Your task to perform on an android device: Add "bose soundsport free" to the cart on newegg.com, then select checkout. Image 0: 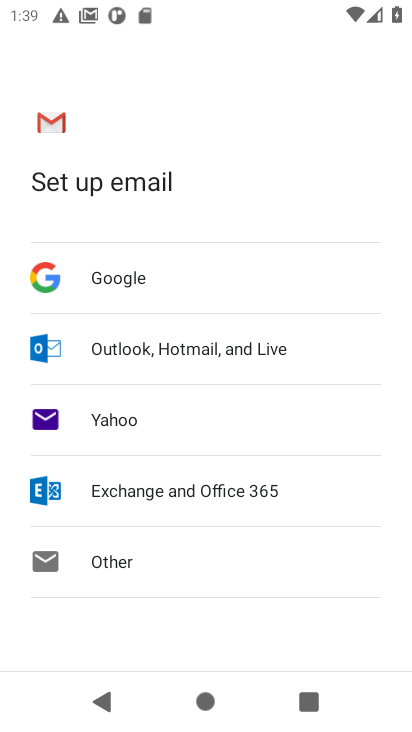
Step 0: press home button
Your task to perform on an android device: Add "bose soundsport free" to the cart on newegg.com, then select checkout. Image 1: 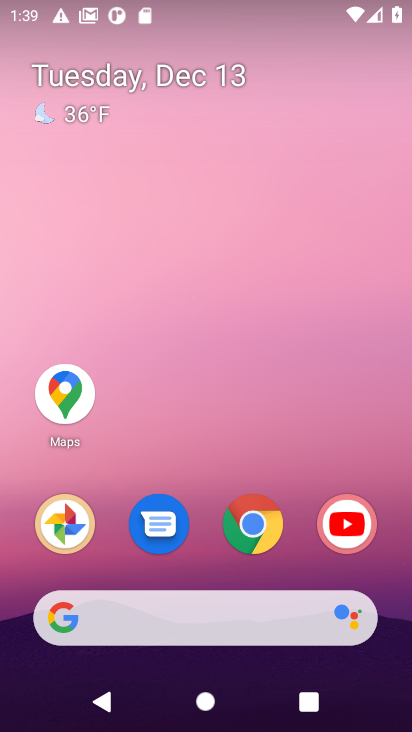
Step 1: click (255, 526)
Your task to perform on an android device: Add "bose soundsport free" to the cart on newegg.com, then select checkout. Image 2: 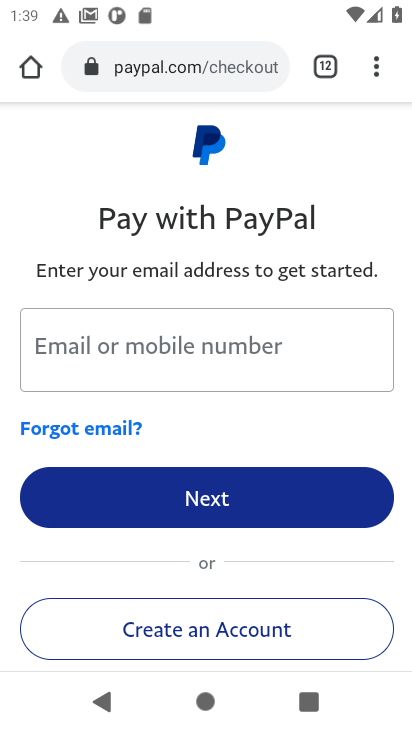
Step 2: click (173, 65)
Your task to perform on an android device: Add "bose soundsport free" to the cart on newegg.com, then select checkout. Image 3: 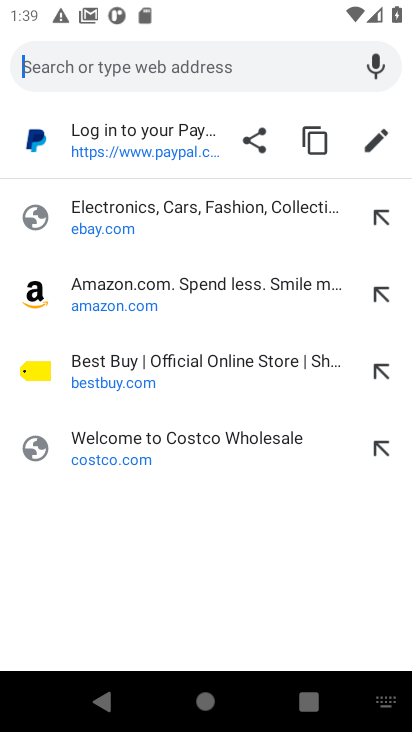
Step 3: type "newegg.com"
Your task to perform on an android device: Add "bose soundsport free" to the cart on newegg.com, then select checkout. Image 4: 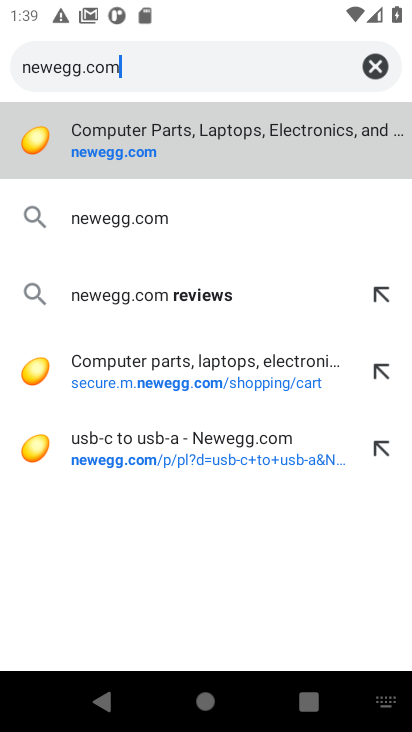
Step 4: click (105, 159)
Your task to perform on an android device: Add "bose soundsport free" to the cart on newegg.com, then select checkout. Image 5: 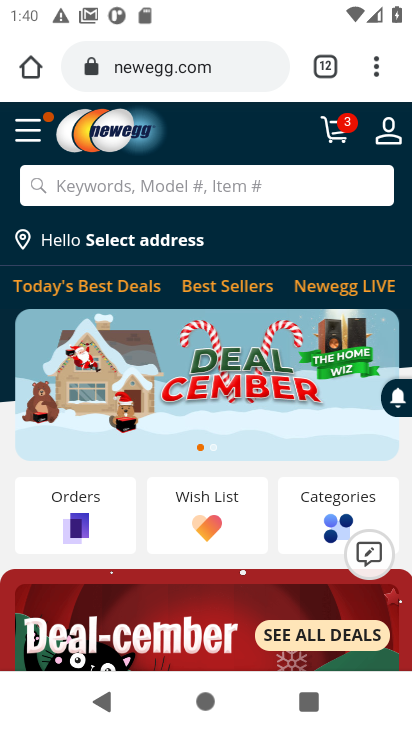
Step 5: click (94, 185)
Your task to perform on an android device: Add "bose soundsport free" to the cart on newegg.com, then select checkout. Image 6: 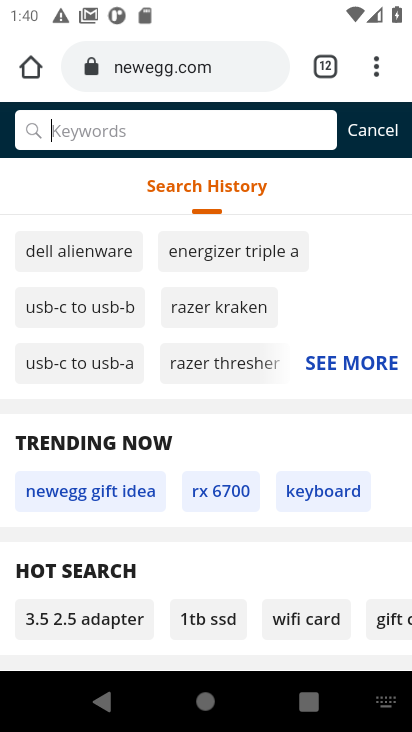
Step 6: type "bose soundsport free"
Your task to perform on an android device: Add "bose soundsport free" to the cart on newegg.com, then select checkout. Image 7: 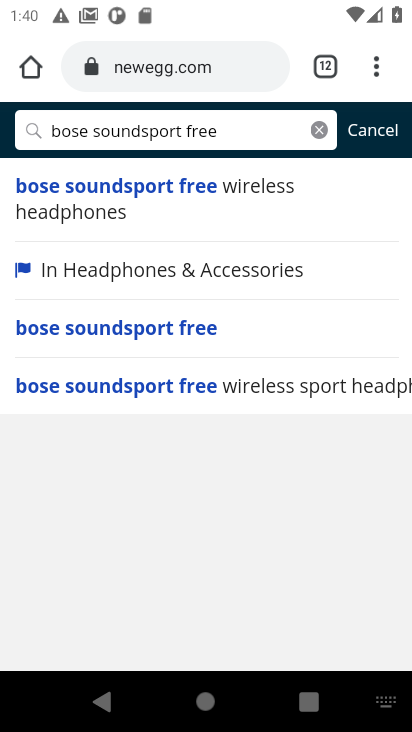
Step 7: click (90, 333)
Your task to perform on an android device: Add "bose soundsport free" to the cart on newegg.com, then select checkout. Image 8: 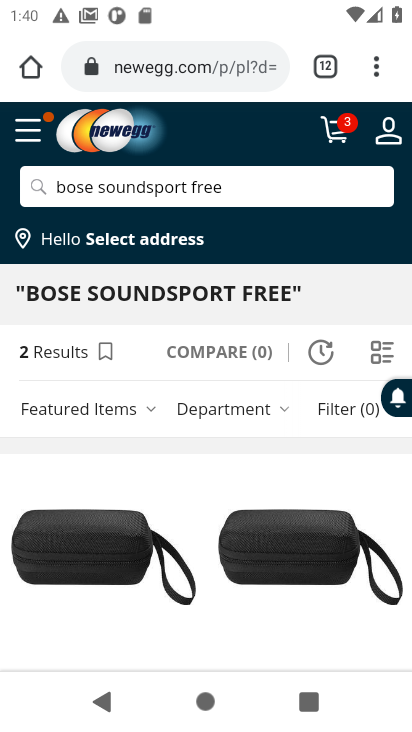
Step 8: drag from (140, 438) to (145, 185)
Your task to perform on an android device: Add "bose soundsport free" to the cart on newegg.com, then select checkout. Image 9: 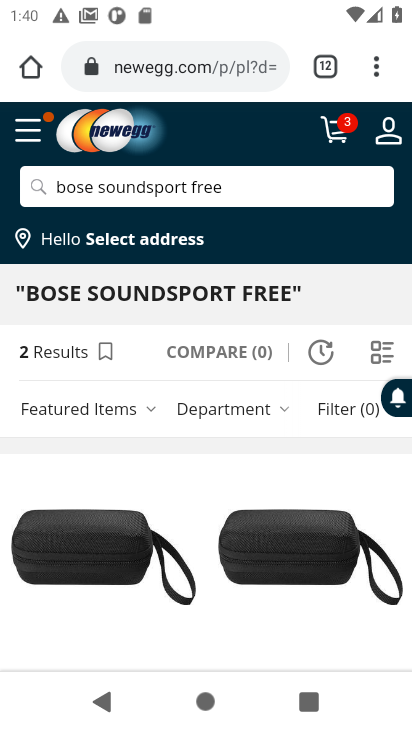
Step 9: drag from (209, 470) to (201, 210)
Your task to perform on an android device: Add "bose soundsport free" to the cart on newegg.com, then select checkout. Image 10: 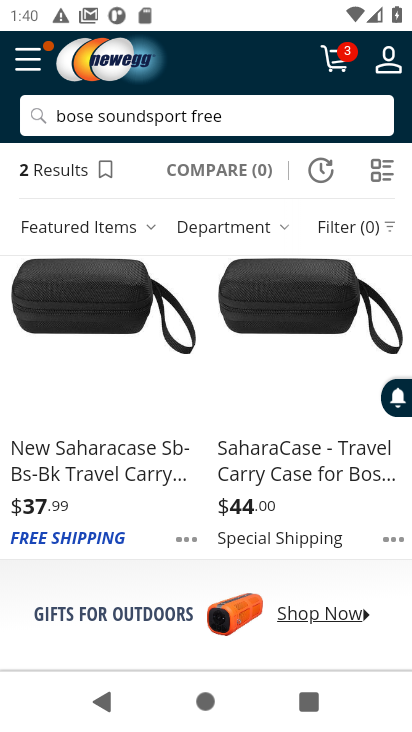
Step 10: click (117, 480)
Your task to perform on an android device: Add "bose soundsport free" to the cart on newegg.com, then select checkout. Image 11: 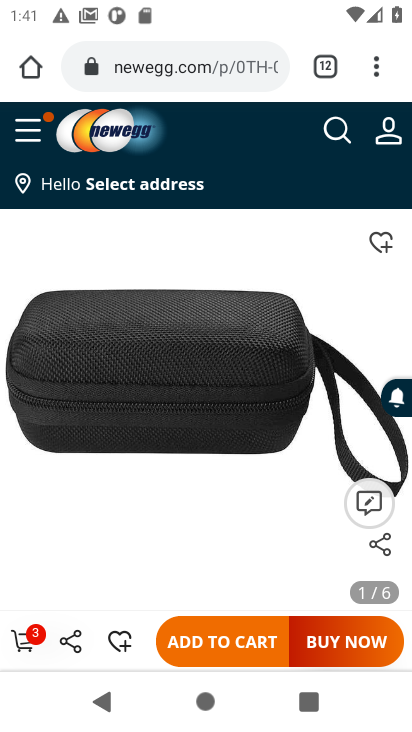
Step 11: drag from (203, 520) to (194, 221)
Your task to perform on an android device: Add "bose soundsport free" to the cart on newegg.com, then select checkout. Image 12: 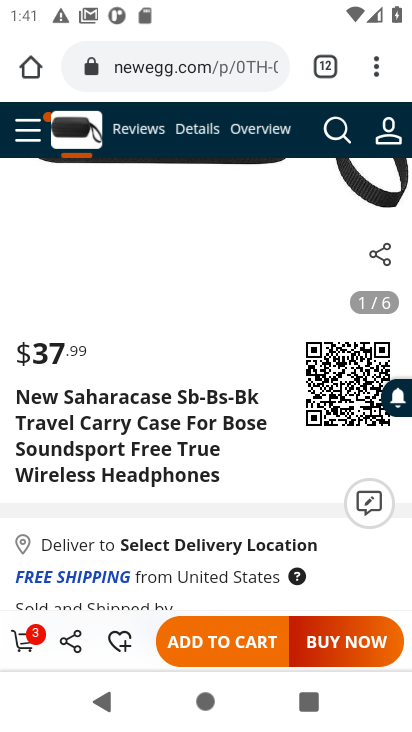
Step 12: click (235, 645)
Your task to perform on an android device: Add "bose soundsport free" to the cart on newegg.com, then select checkout. Image 13: 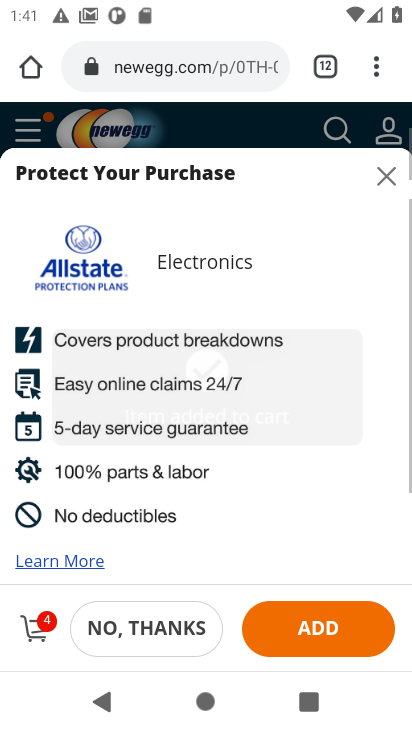
Step 13: click (30, 625)
Your task to perform on an android device: Add "bose soundsport free" to the cart on newegg.com, then select checkout. Image 14: 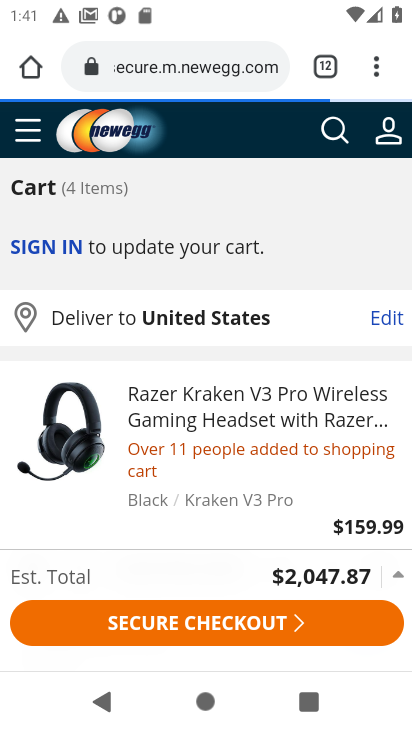
Step 14: click (107, 626)
Your task to perform on an android device: Add "bose soundsport free" to the cart on newegg.com, then select checkout. Image 15: 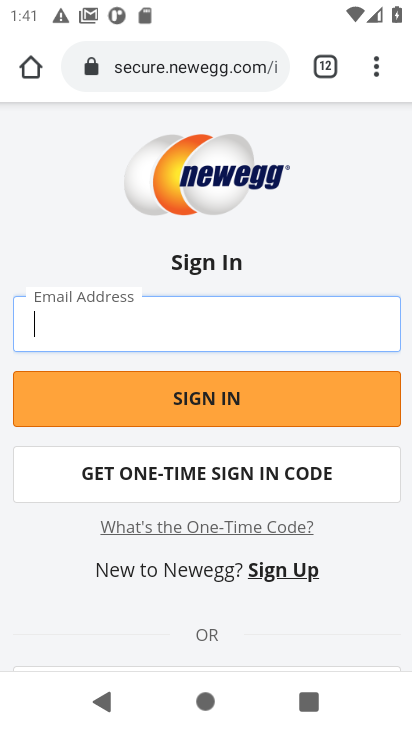
Step 15: task complete